Your task to perform on an android device: change your default location settings in chrome Image 0: 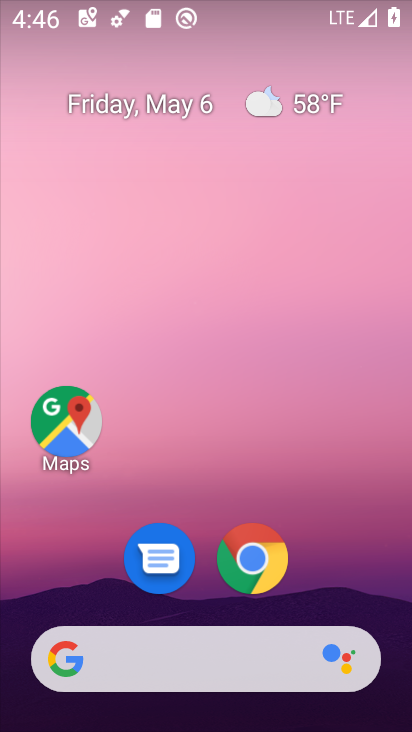
Step 0: click (260, 559)
Your task to perform on an android device: change your default location settings in chrome Image 1: 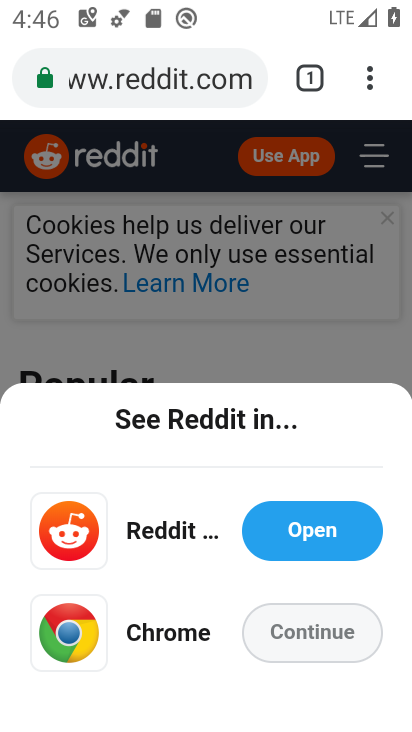
Step 1: drag from (372, 79) to (183, 623)
Your task to perform on an android device: change your default location settings in chrome Image 2: 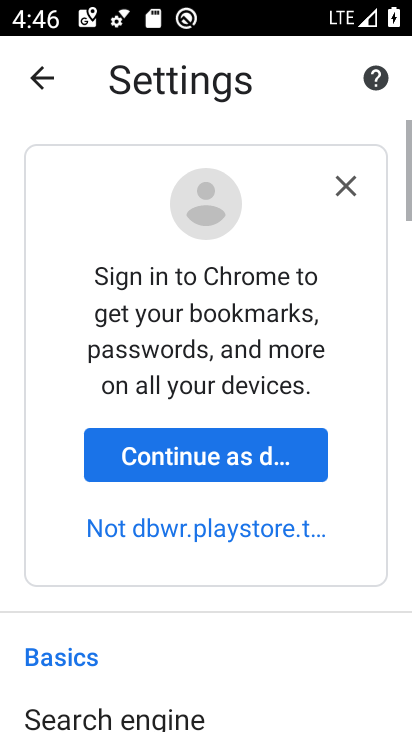
Step 2: drag from (199, 593) to (153, 10)
Your task to perform on an android device: change your default location settings in chrome Image 3: 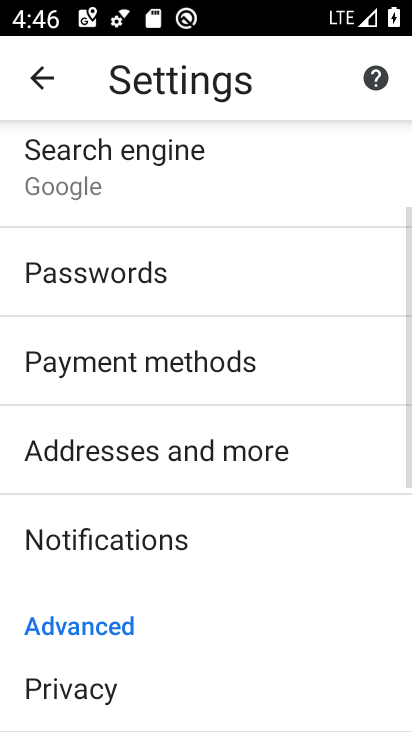
Step 3: drag from (313, 704) to (267, 201)
Your task to perform on an android device: change your default location settings in chrome Image 4: 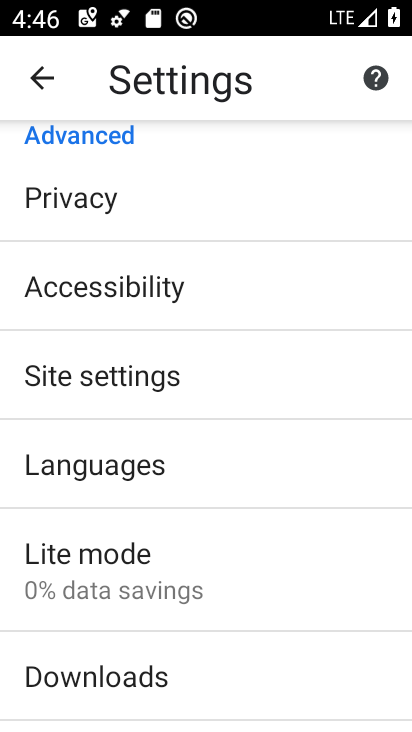
Step 4: drag from (190, 653) to (207, 384)
Your task to perform on an android device: change your default location settings in chrome Image 5: 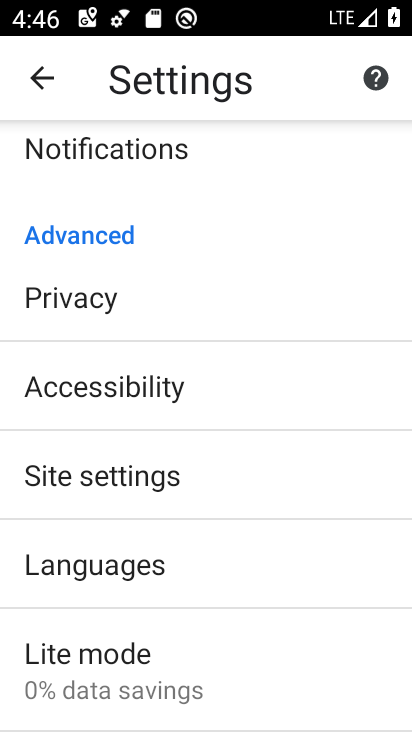
Step 5: click (156, 484)
Your task to perform on an android device: change your default location settings in chrome Image 6: 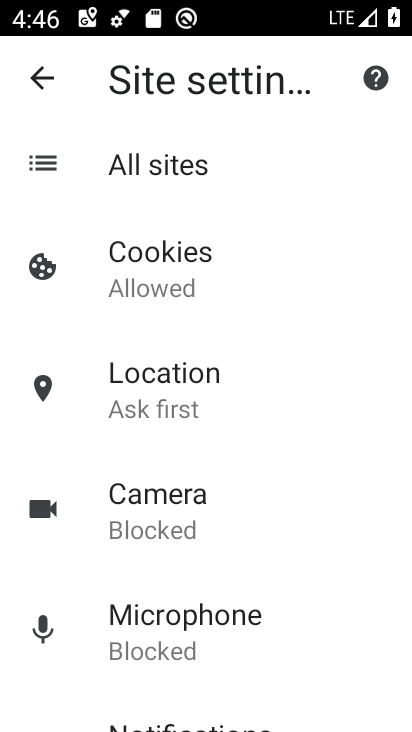
Step 6: drag from (265, 692) to (263, 264)
Your task to perform on an android device: change your default location settings in chrome Image 7: 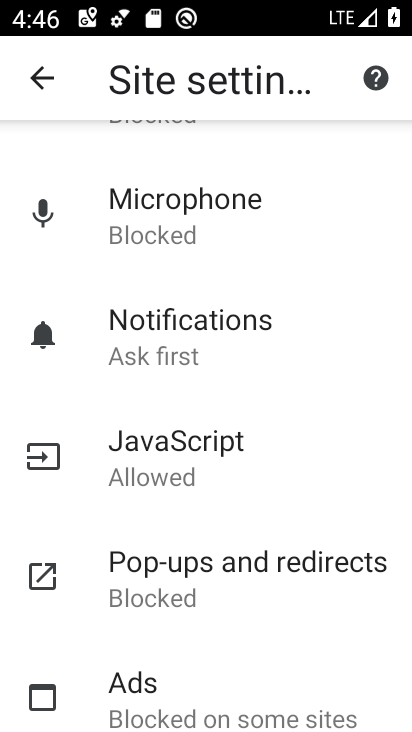
Step 7: drag from (228, 257) to (283, 703)
Your task to perform on an android device: change your default location settings in chrome Image 8: 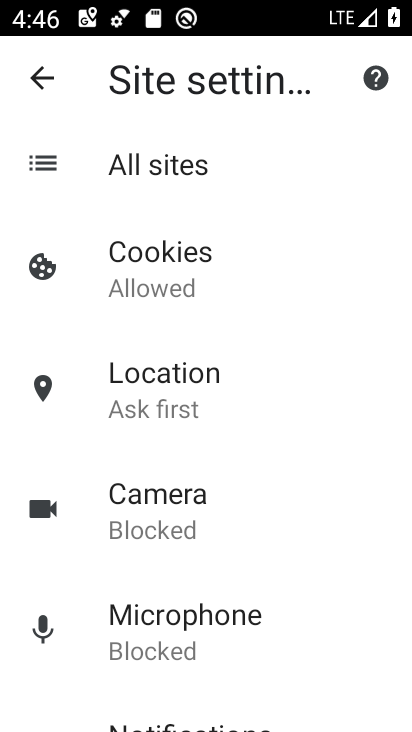
Step 8: click (192, 391)
Your task to perform on an android device: change your default location settings in chrome Image 9: 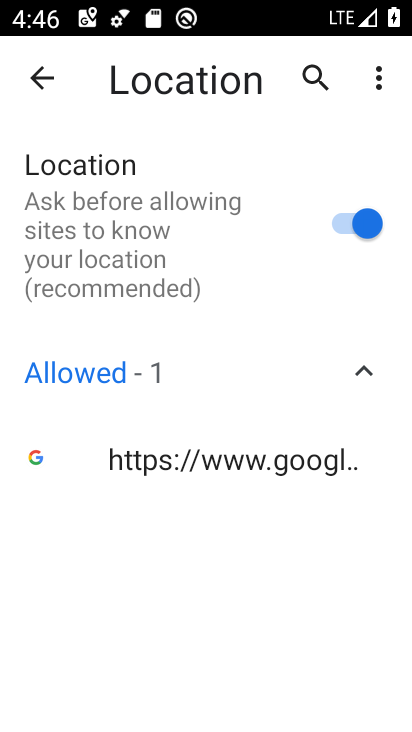
Step 9: click (346, 218)
Your task to perform on an android device: change your default location settings in chrome Image 10: 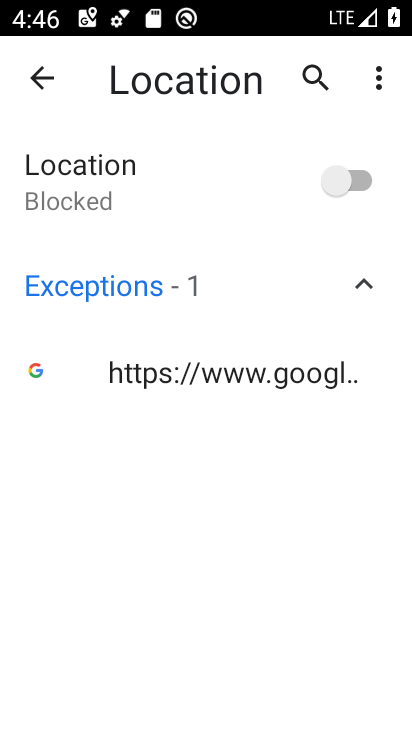
Step 10: task complete